Your task to perform on an android device: Go to accessibility settings Image 0: 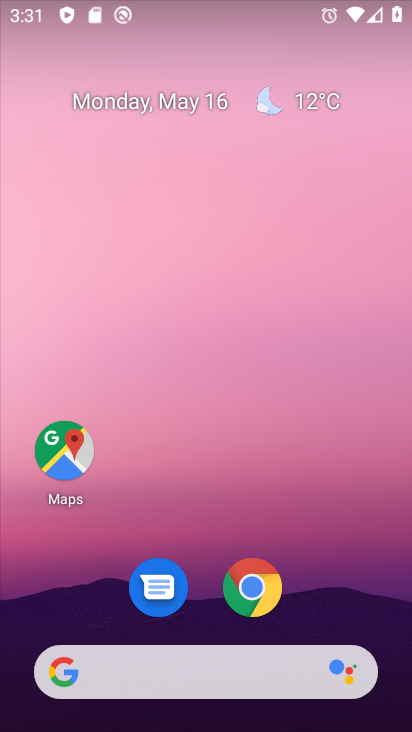
Step 0: drag from (396, 522) to (370, 345)
Your task to perform on an android device: Go to accessibility settings Image 1: 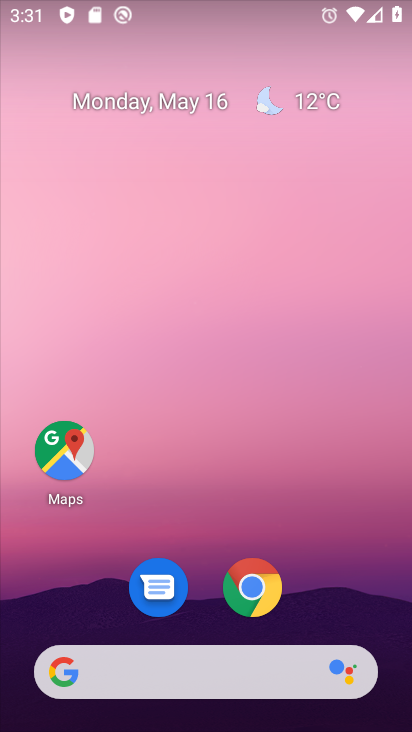
Step 1: drag from (386, 522) to (322, 251)
Your task to perform on an android device: Go to accessibility settings Image 2: 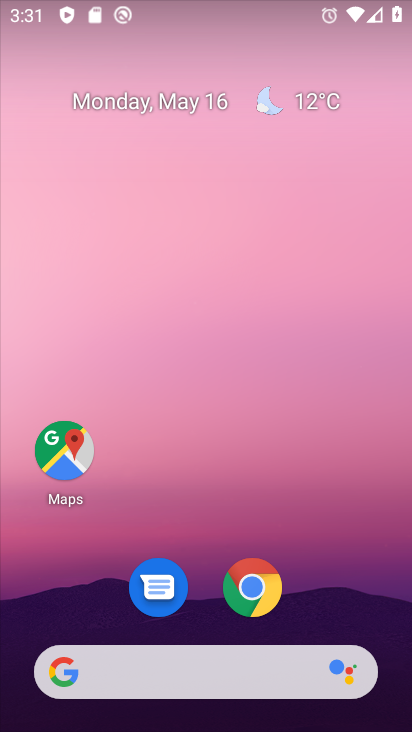
Step 2: drag from (387, 656) to (317, 222)
Your task to perform on an android device: Go to accessibility settings Image 3: 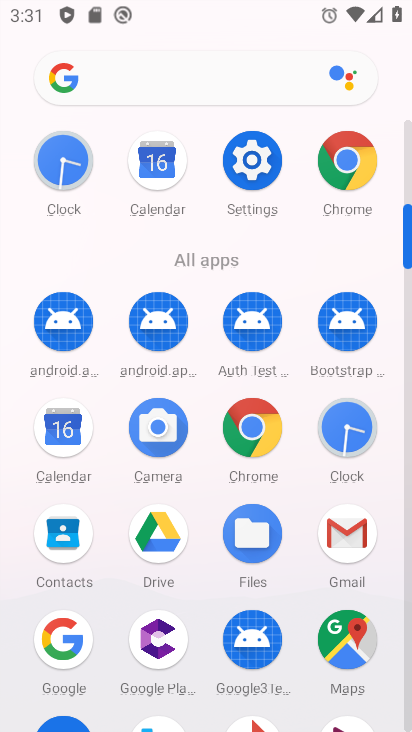
Step 3: click (258, 173)
Your task to perform on an android device: Go to accessibility settings Image 4: 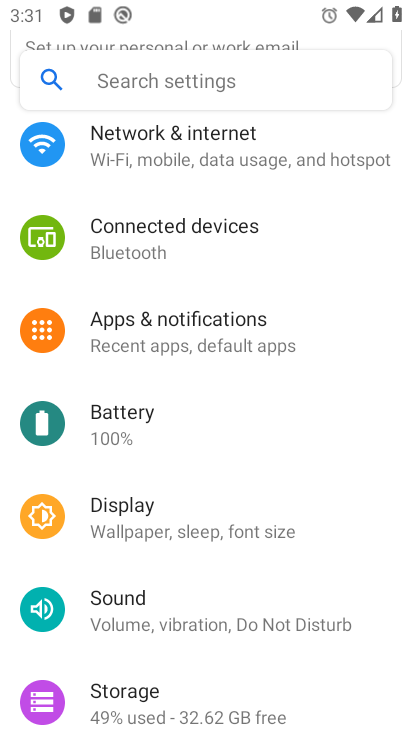
Step 4: drag from (354, 671) to (367, 314)
Your task to perform on an android device: Go to accessibility settings Image 5: 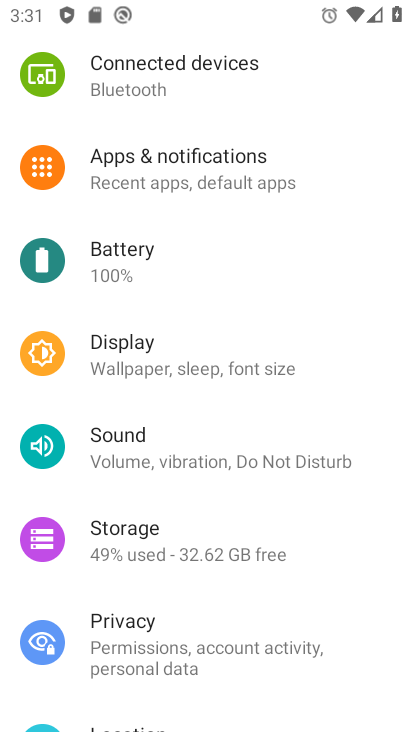
Step 5: drag from (327, 692) to (313, 419)
Your task to perform on an android device: Go to accessibility settings Image 6: 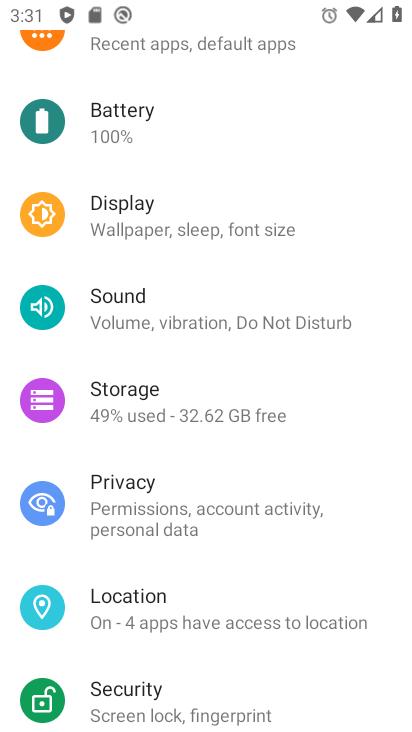
Step 6: drag from (329, 657) to (299, 396)
Your task to perform on an android device: Go to accessibility settings Image 7: 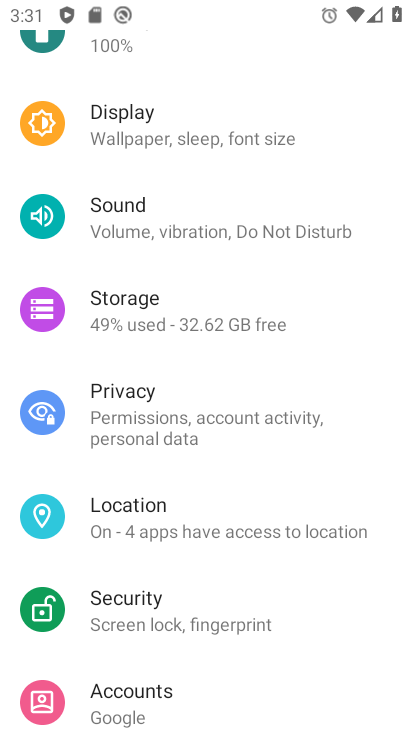
Step 7: drag from (339, 690) to (317, 334)
Your task to perform on an android device: Go to accessibility settings Image 8: 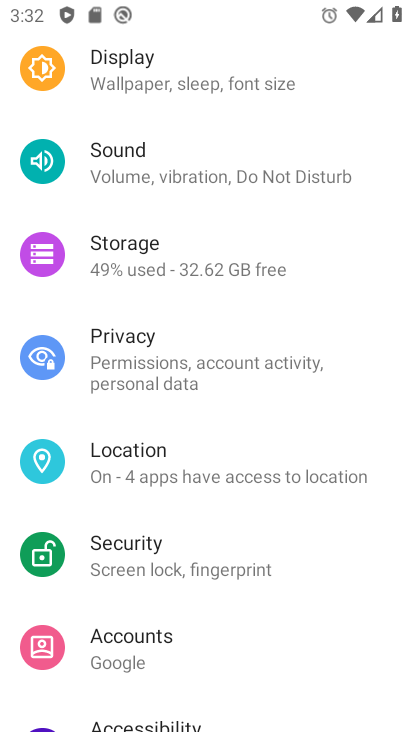
Step 8: drag from (345, 669) to (334, 278)
Your task to perform on an android device: Go to accessibility settings Image 9: 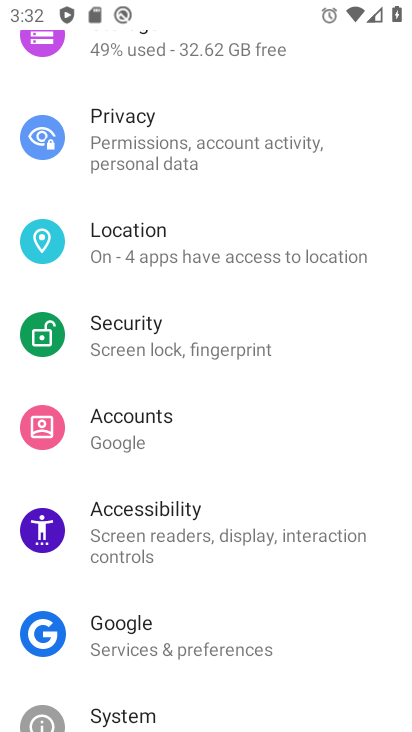
Step 9: drag from (359, 642) to (333, 460)
Your task to perform on an android device: Go to accessibility settings Image 10: 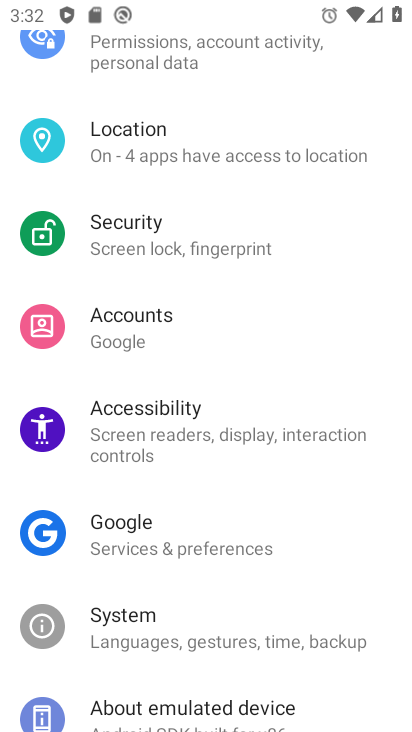
Step 10: click (129, 411)
Your task to perform on an android device: Go to accessibility settings Image 11: 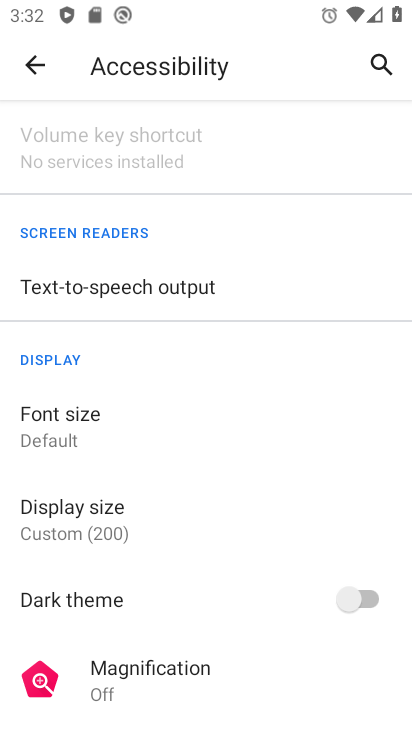
Step 11: task complete